Your task to perform on an android device: refresh tabs in the chrome app Image 0: 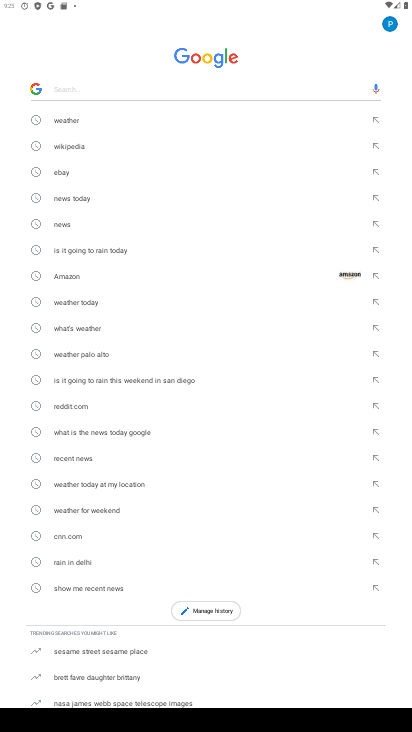
Step 0: press home button
Your task to perform on an android device: refresh tabs in the chrome app Image 1: 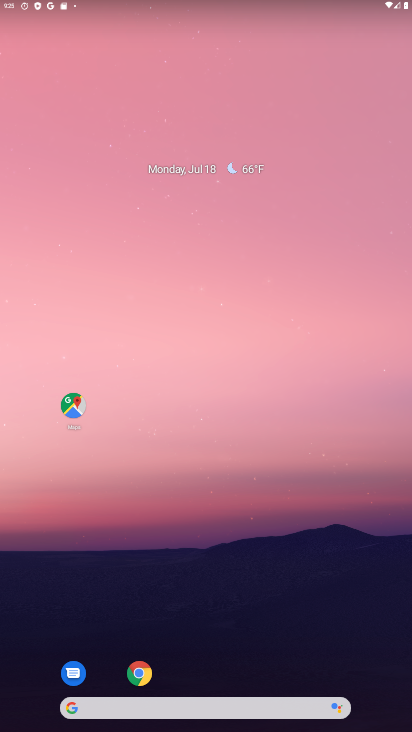
Step 1: click (140, 672)
Your task to perform on an android device: refresh tabs in the chrome app Image 2: 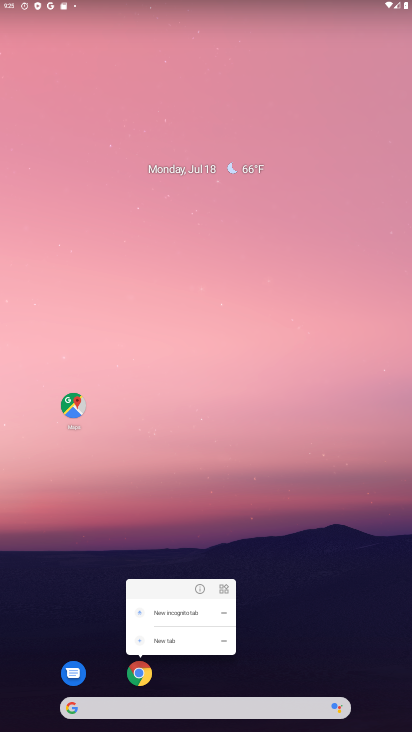
Step 2: click (139, 678)
Your task to perform on an android device: refresh tabs in the chrome app Image 3: 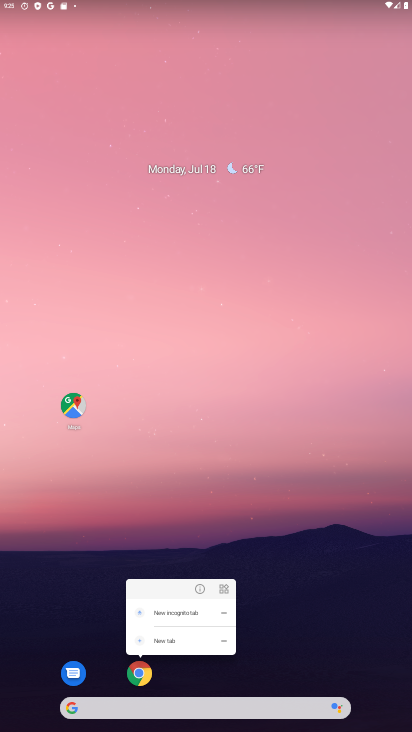
Step 3: click (144, 677)
Your task to perform on an android device: refresh tabs in the chrome app Image 4: 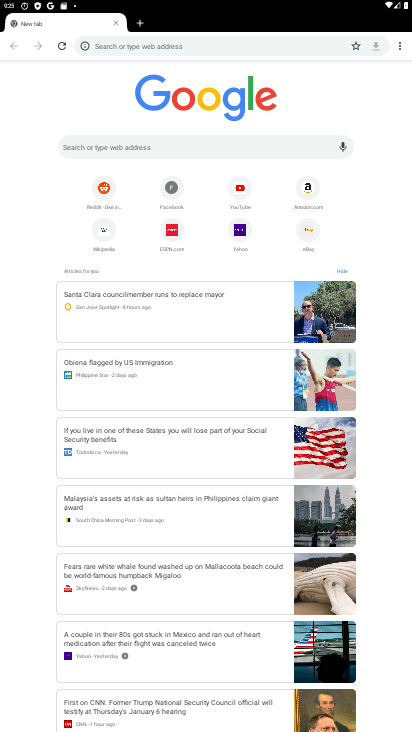
Step 4: click (60, 47)
Your task to perform on an android device: refresh tabs in the chrome app Image 5: 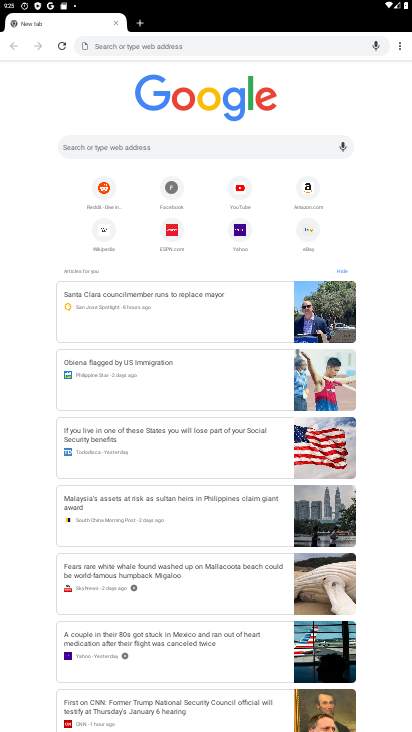
Step 5: task complete